Your task to perform on an android device: check google app version Image 0: 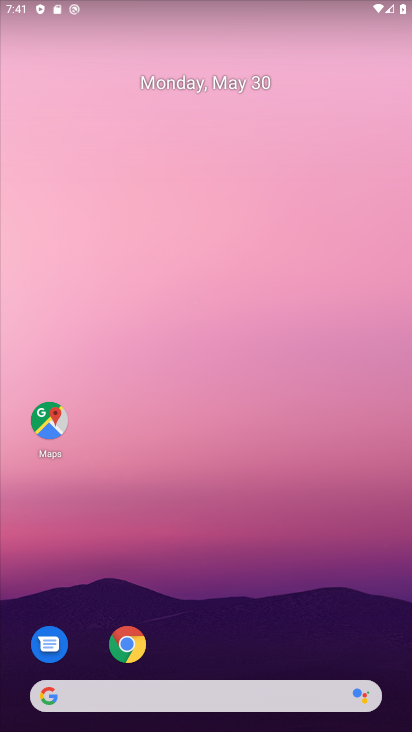
Step 0: drag from (250, 650) to (154, 31)
Your task to perform on an android device: check google app version Image 1: 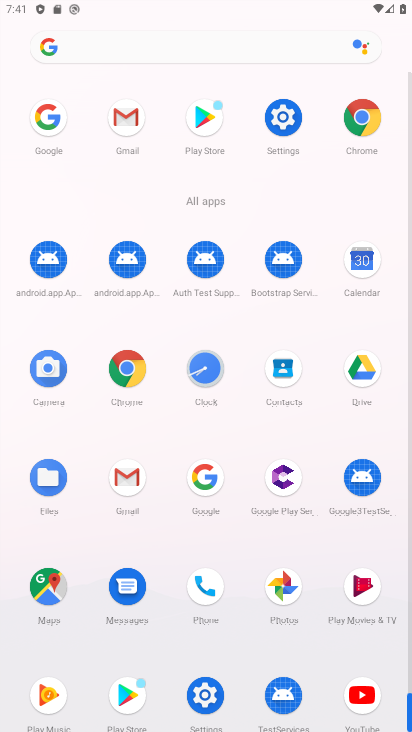
Step 1: click (47, 115)
Your task to perform on an android device: check google app version Image 2: 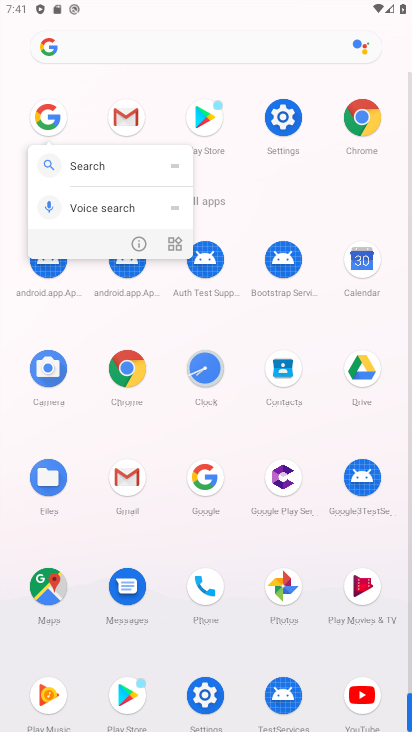
Step 2: click (137, 241)
Your task to perform on an android device: check google app version Image 3: 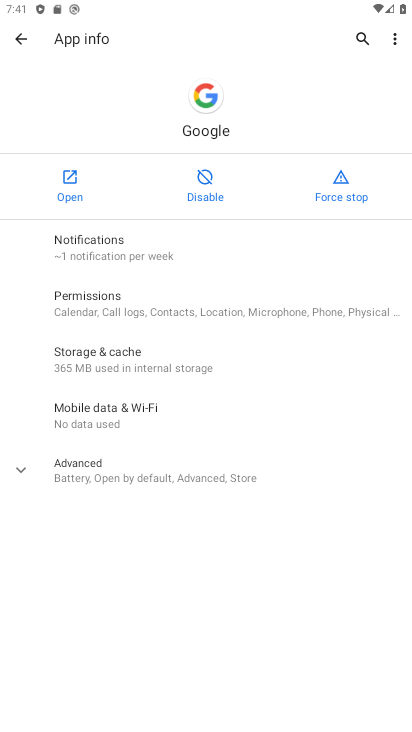
Step 3: click (131, 474)
Your task to perform on an android device: check google app version Image 4: 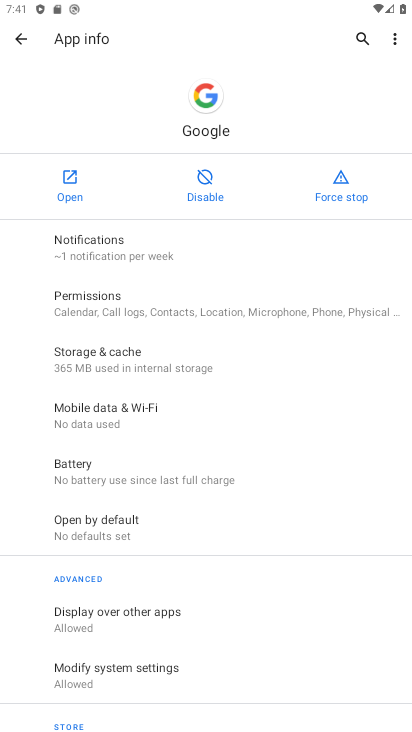
Step 4: task complete